Your task to perform on an android device: change timer sound Image 0: 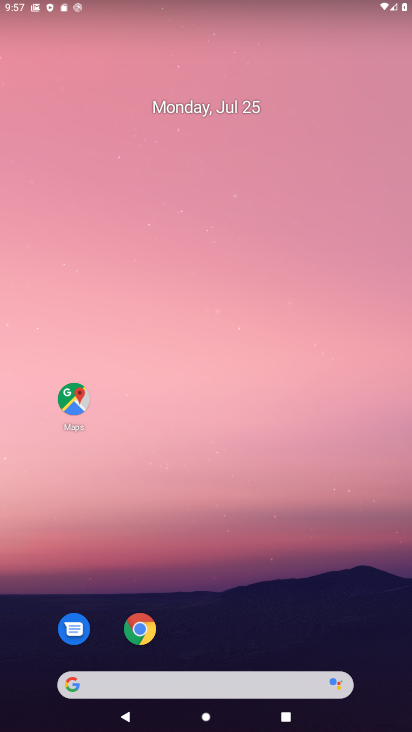
Step 0: drag from (269, 654) to (272, 24)
Your task to perform on an android device: change timer sound Image 1: 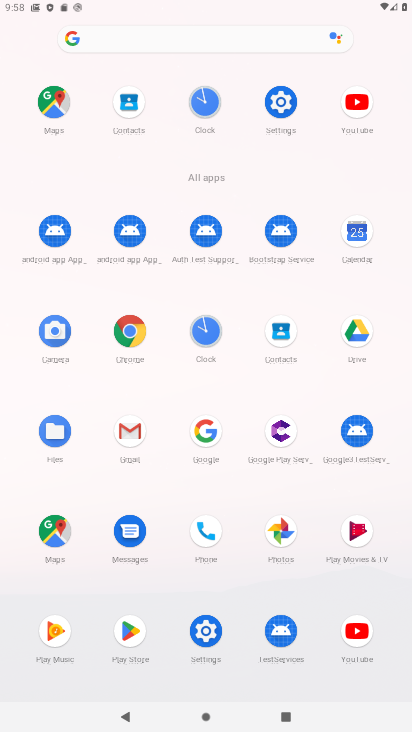
Step 1: click (208, 320)
Your task to perform on an android device: change timer sound Image 2: 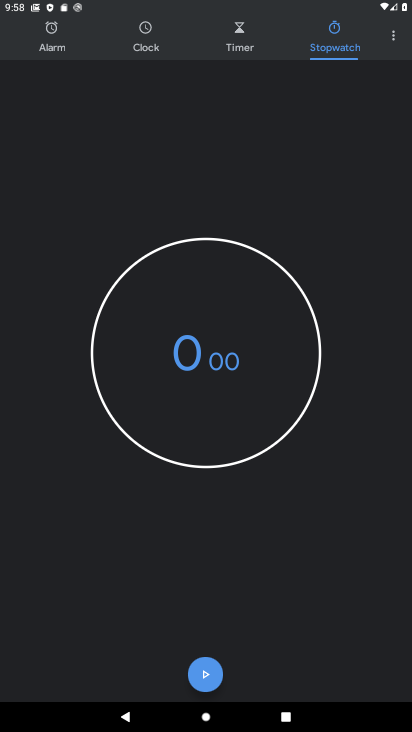
Step 2: click (396, 41)
Your task to perform on an android device: change timer sound Image 3: 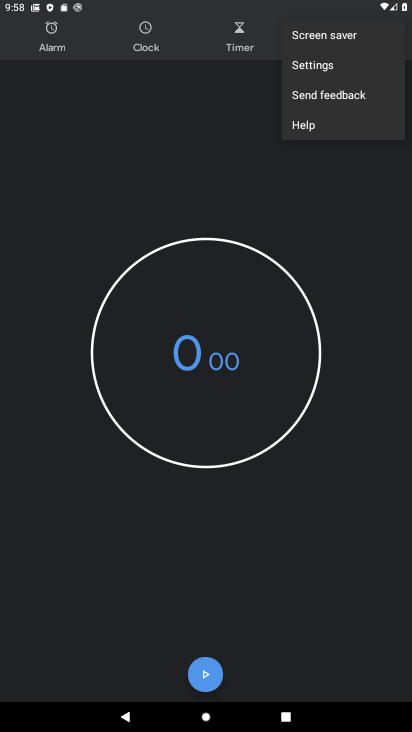
Step 3: click (332, 75)
Your task to perform on an android device: change timer sound Image 4: 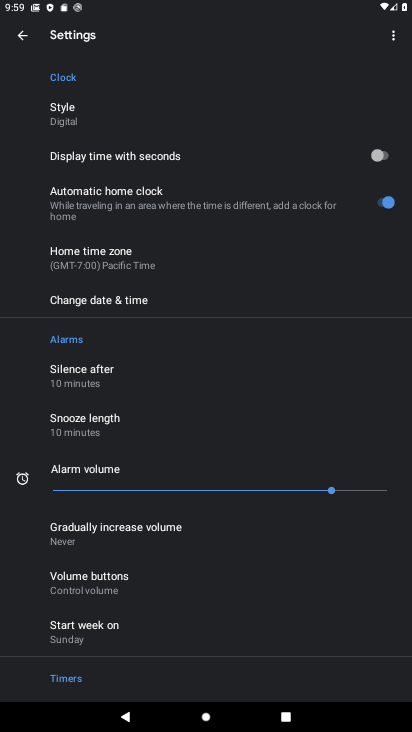
Step 4: drag from (152, 426) to (181, 130)
Your task to perform on an android device: change timer sound Image 5: 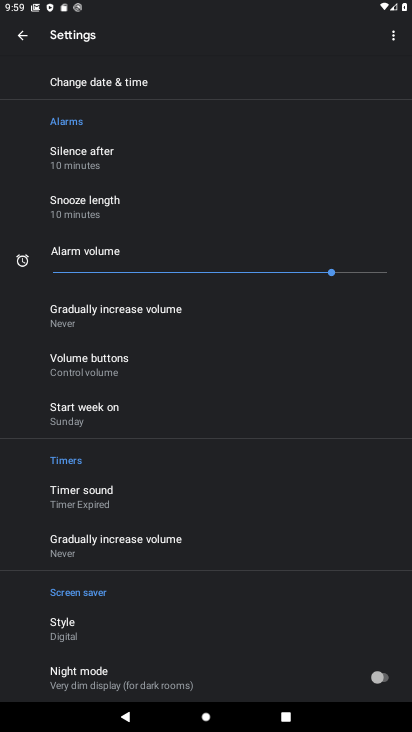
Step 5: click (96, 493)
Your task to perform on an android device: change timer sound Image 6: 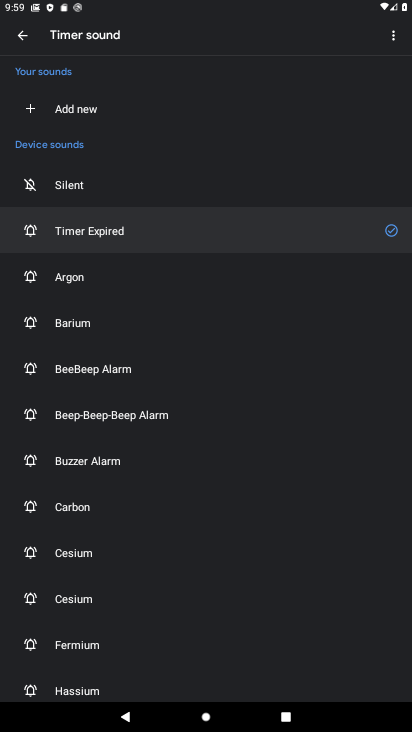
Step 6: click (57, 331)
Your task to perform on an android device: change timer sound Image 7: 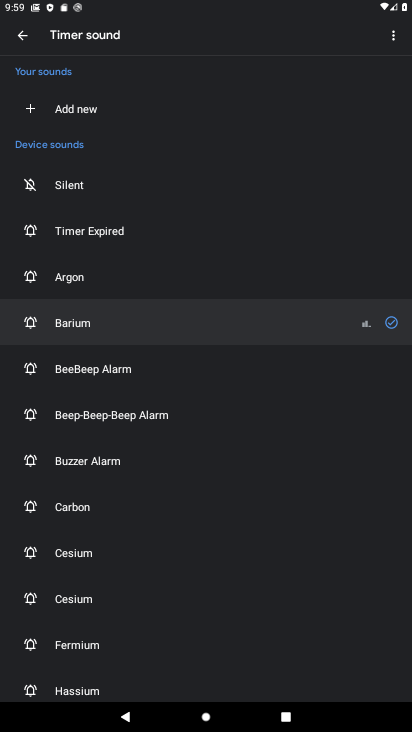
Step 7: task complete